Your task to perform on an android device: empty trash in google photos Image 0: 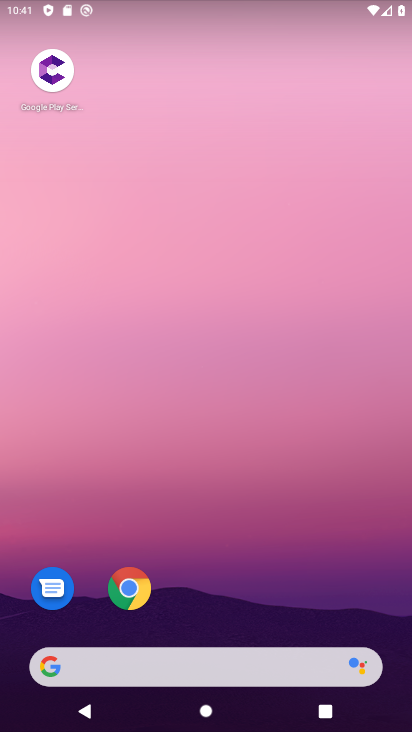
Step 0: drag from (220, 728) to (220, 55)
Your task to perform on an android device: empty trash in google photos Image 1: 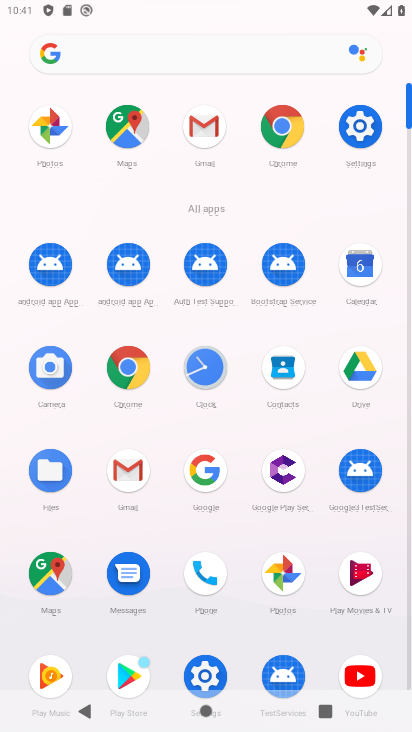
Step 1: click (278, 565)
Your task to perform on an android device: empty trash in google photos Image 2: 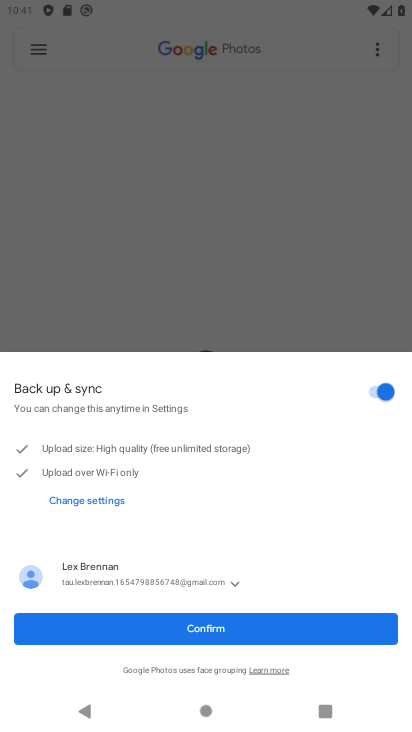
Step 2: click (252, 635)
Your task to perform on an android device: empty trash in google photos Image 3: 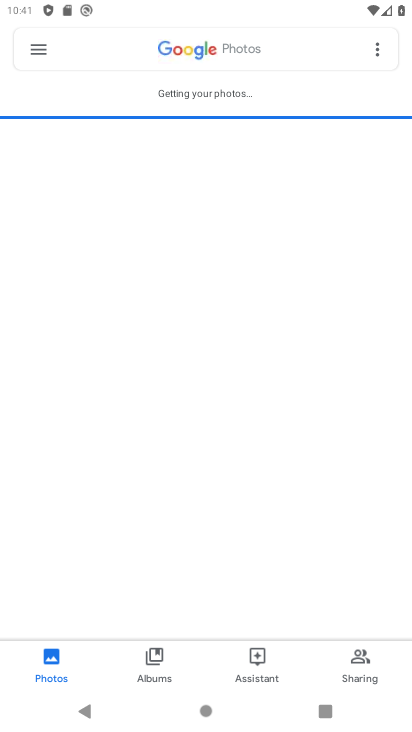
Step 3: click (31, 48)
Your task to perform on an android device: empty trash in google photos Image 4: 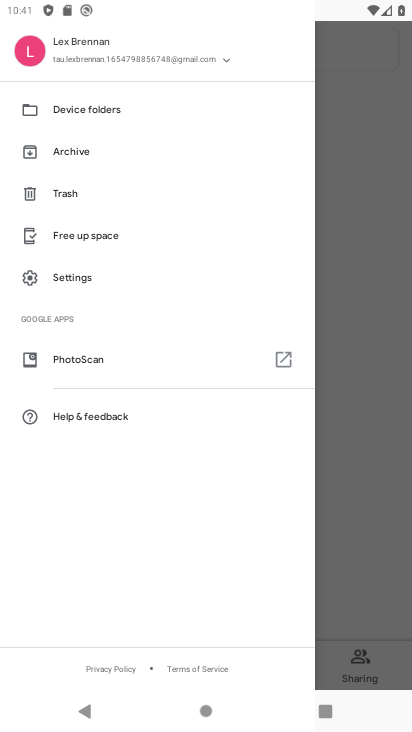
Step 4: click (66, 192)
Your task to perform on an android device: empty trash in google photos Image 5: 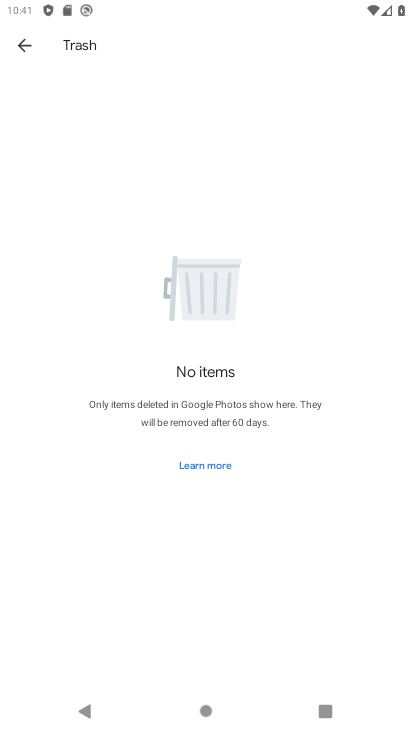
Step 5: task complete